Your task to perform on an android device: open chrome and create a bookmark for the current page Image 0: 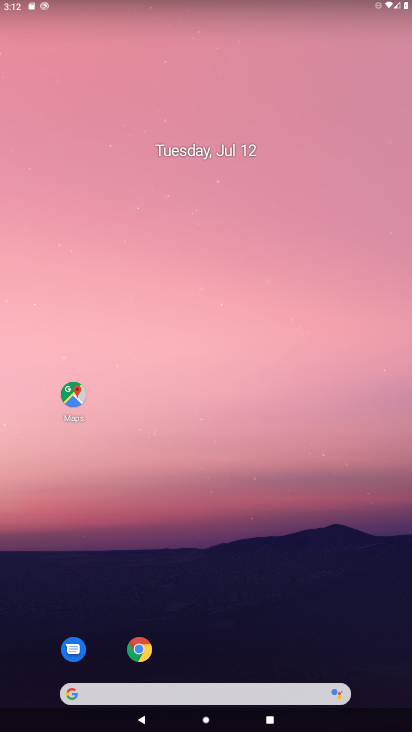
Step 0: drag from (267, 636) to (172, 2)
Your task to perform on an android device: open chrome and create a bookmark for the current page Image 1: 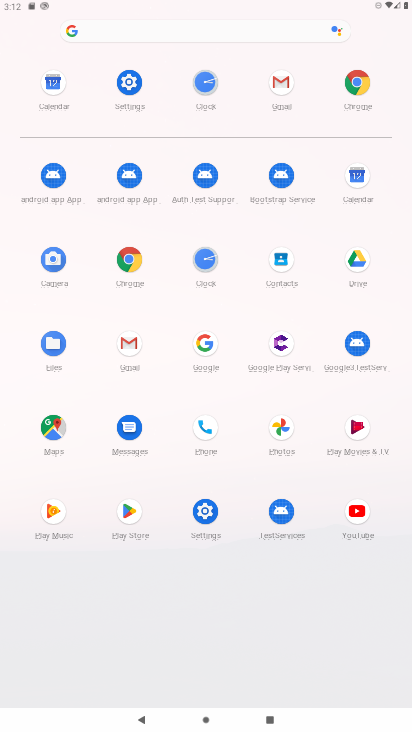
Step 1: click (347, 83)
Your task to perform on an android device: open chrome and create a bookmark for the current page Image 2: 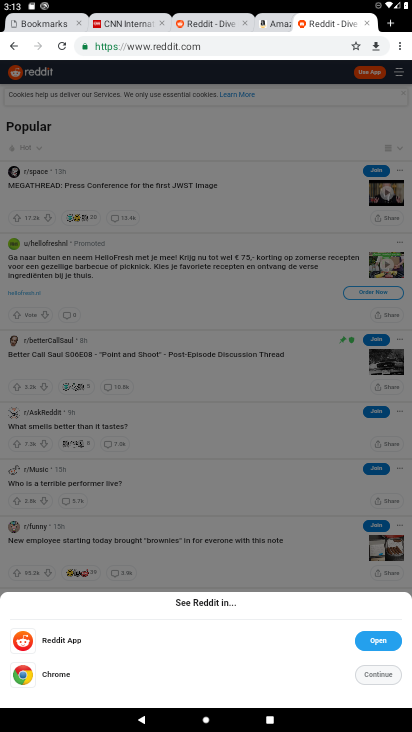
Step 2: click (351, 45)
Your task to perform on an android device: open chrome and create a bookmark for the current page Image 3: 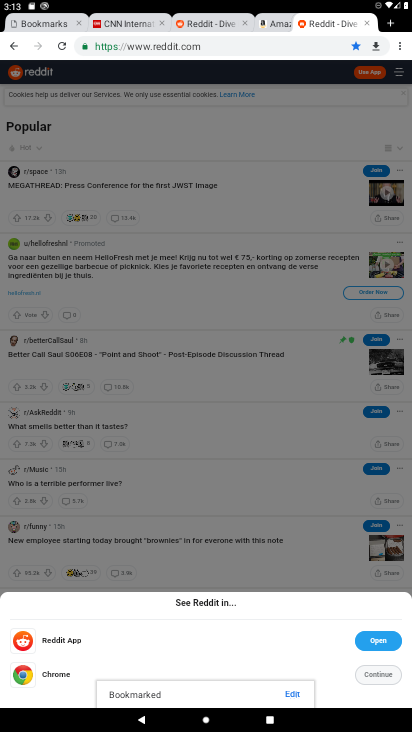
Step 3: task complete